Your task to perform on an android device: Open Google Chrome and click the shortcut for Amazon.com Image 0: 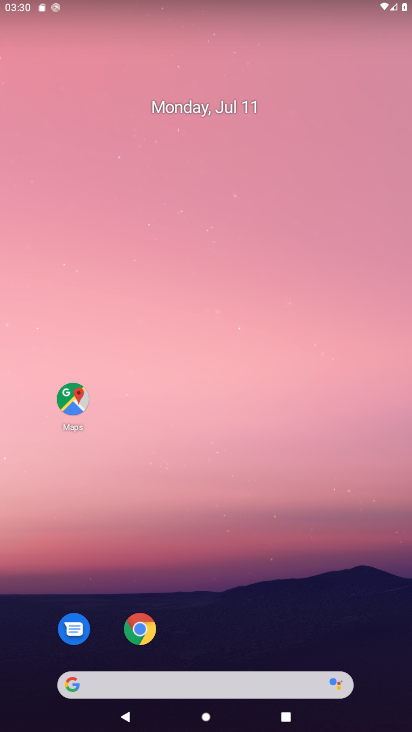
Step 0: press home button
Your task to perform on an android device: Open Google Chrome and click the shortcut for Amazon.com Image 1: 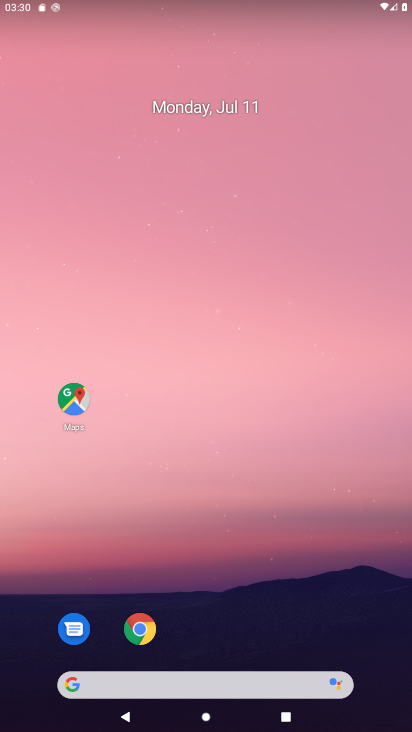
Step 1: click (141, 635)
Your task to perform on an android device: Open Google Chrome and click the shortcut for Amazon.com Image 2: 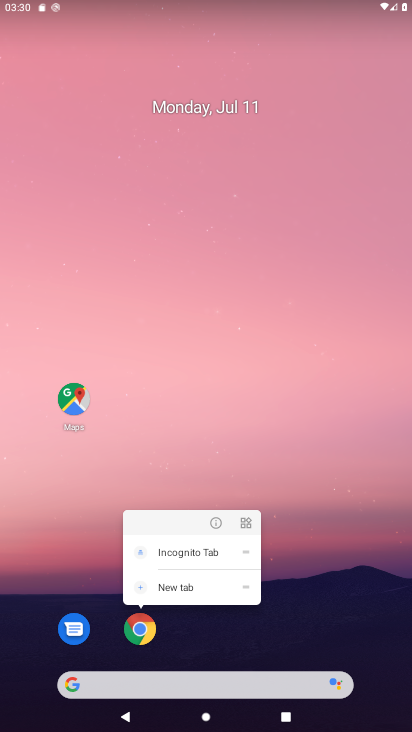
Step 2: click (145, 634)
Your task to perform on an android device: Open Google Chrome and click the shortcut for Amazon.com Image 3: 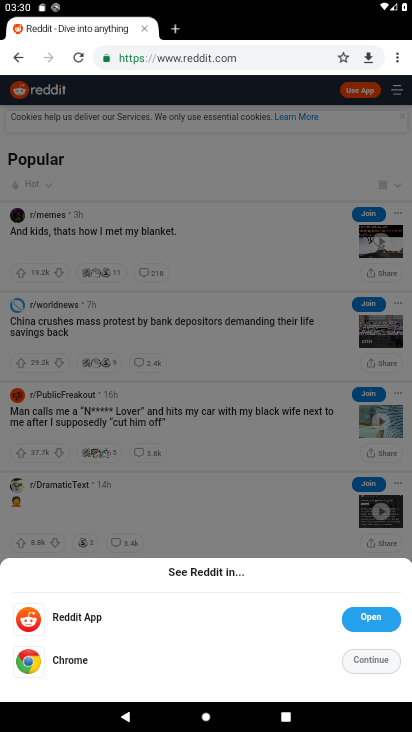
Step 3: click (173, 29)
Your task to perform on an android device: Open Google Chrome and click the shortcut for Amazon.com Image 4: 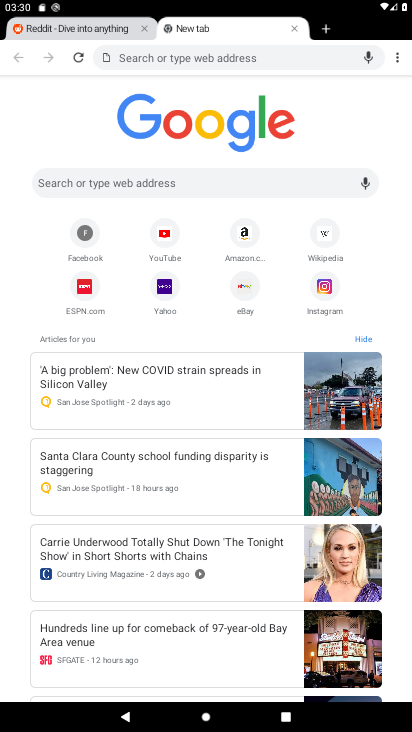
Step 4: click (246, 232)
Your task to perform on an android device: Open Google Chrome and click the shortcut for Amazon.com Image 5: 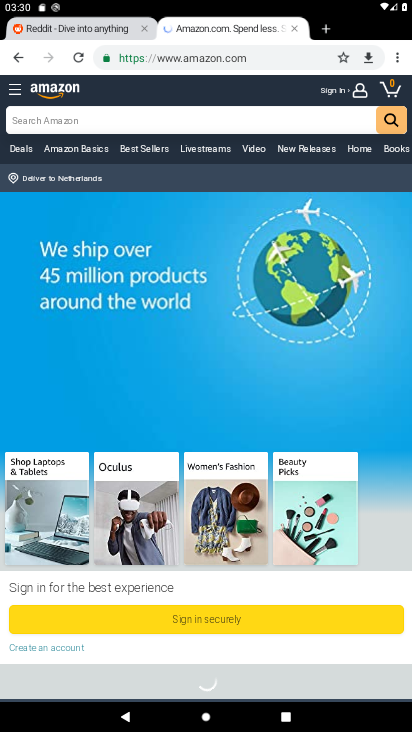
Step 5: task complete